Your task to perform on an android device: turn on javascript in the chrome app Image 0: 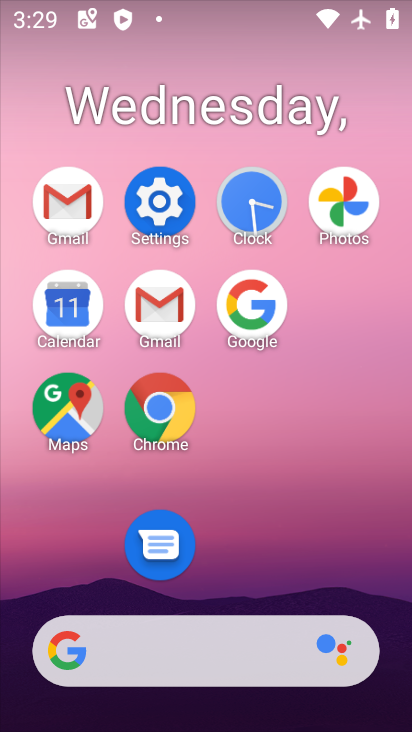
Step 0: click (168, 399)
Your task to perform on an android device: turn on javascript in the chrome app Image 1: 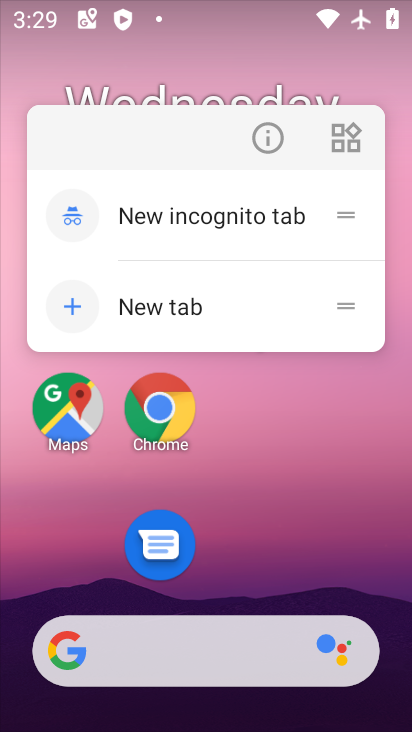
Step 1: click (168, 399)
Your task to perform on an android device: turn on javascript in the chrome app Image 2: 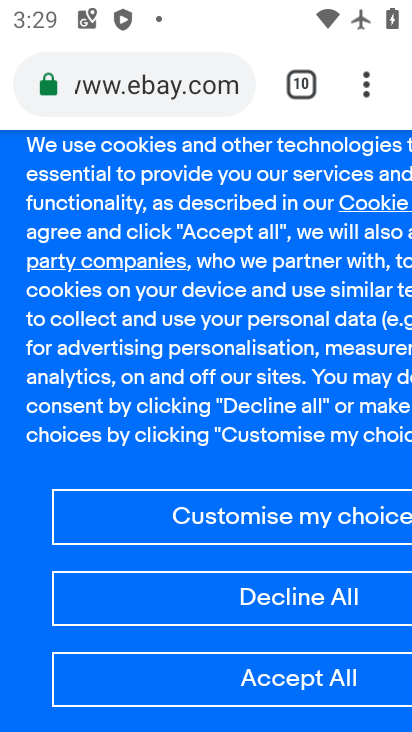
Step 2: click (367, 82)
Your task to perform on an android device: turn on javascript in the chrome app Image 3: 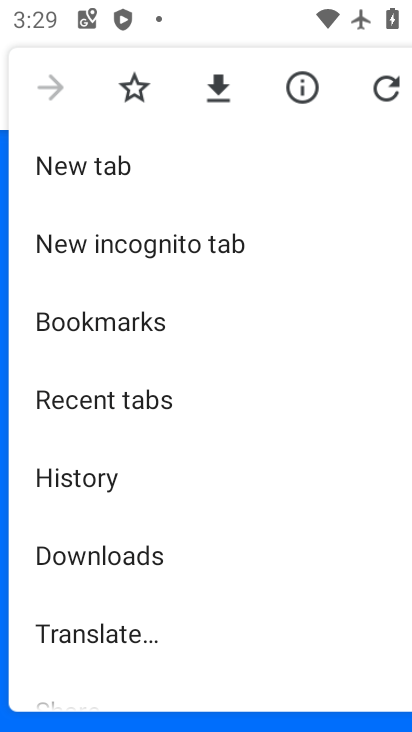
Step 3: drag from (266, 569) to (208, 77)
Your task to perform on an android device: turn on javascript in the chrome app Image 4: 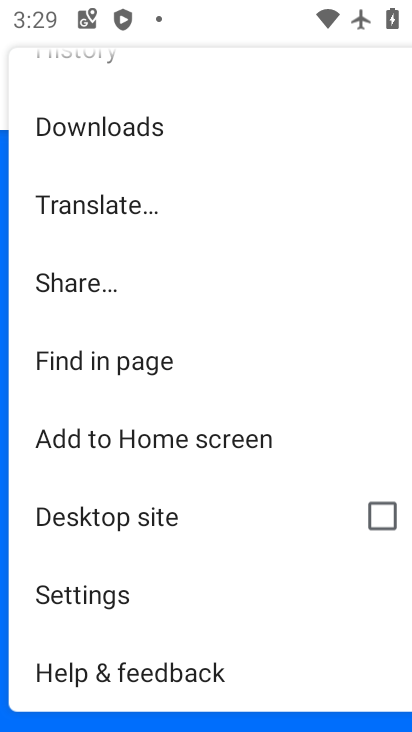
Step 4: click (138, 593)
Your task to perform on an android device: turn on javascript in the chrome app Image 5: 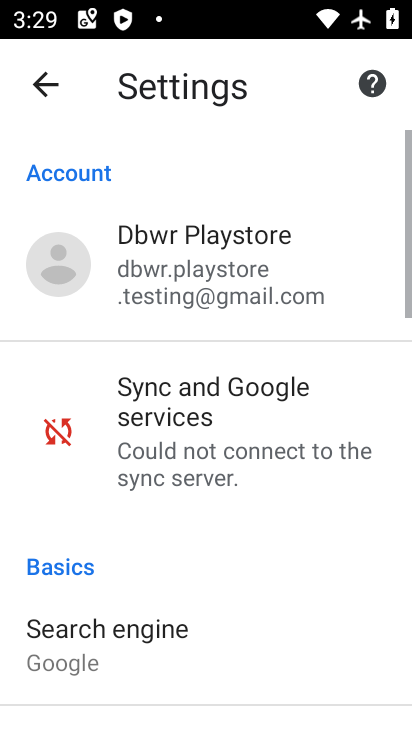
Step 5: drag from (166, 602) to (182, 118)
Your task to perform on an android device: turn on javascript in the chrome app Image 6: 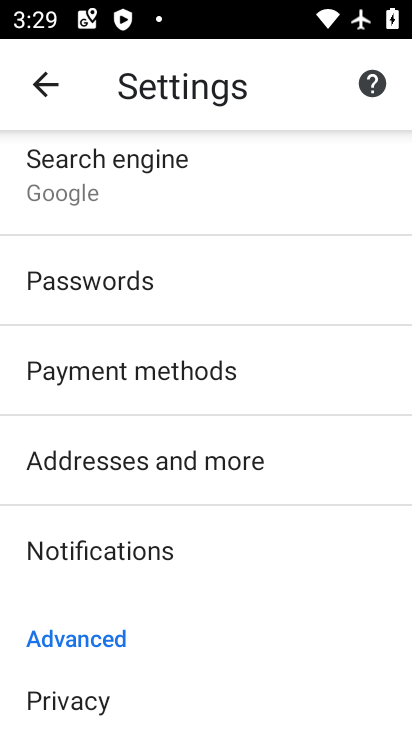
Step 6: drag from (160, 604) to (191, 186)
Your task to perform on an android device: turn on javascript in the chrome app Image 7: 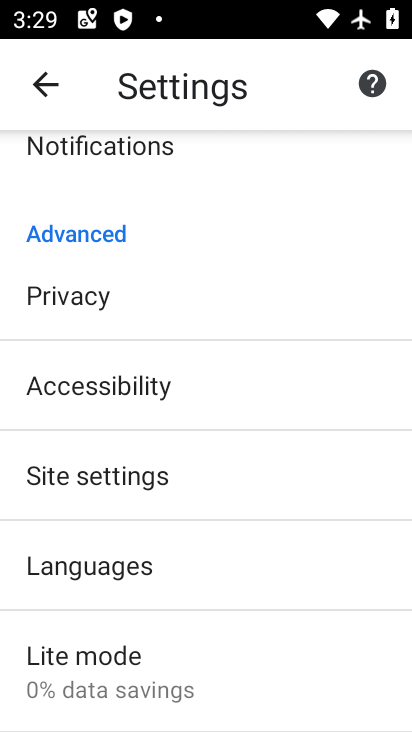
Step 7: click (165, 486)
Your task to perform on an android device: turn on javascript in the chrome app Image 8: 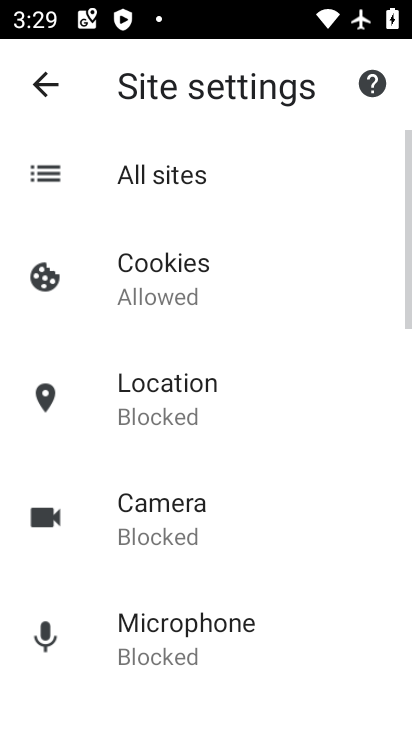
Step 8: drag from (244, 575) to (202, 162)
Your task to perform on an android device: turn on javascript in the chrome app Image 9: 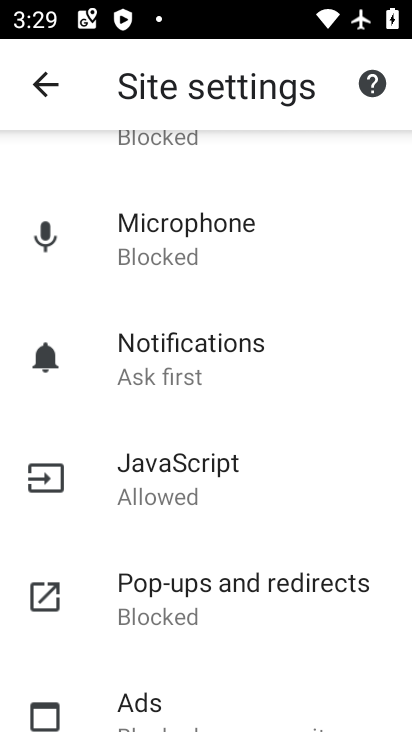
Step 9: click (217, 474)
Your task to perform on an android device: turn on javascript in the chrome app Image 10: 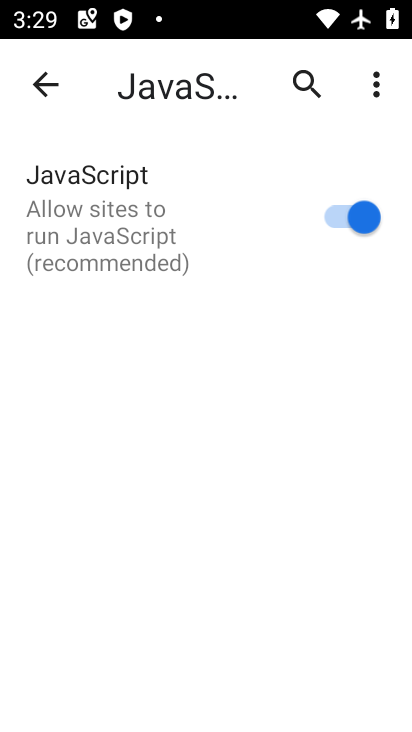
Step 10: task complete